Your task to perform on an android device: set default search engine in the chrome app Image 0: 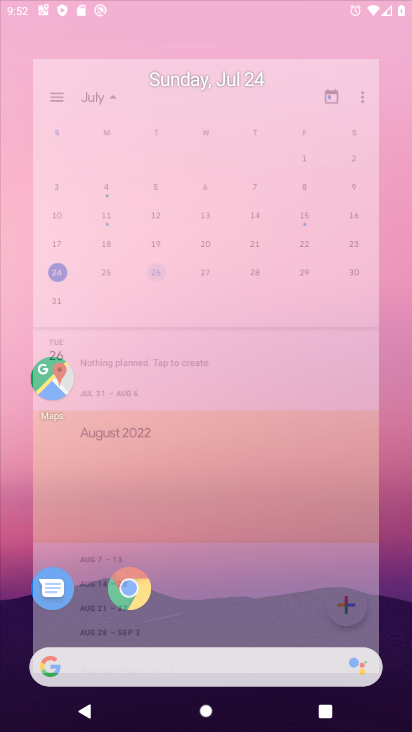
Step 0: drag from (245, 520) to (153, 143)
Your task to perform on an android device: set default search engine in the chrome app Image 1: 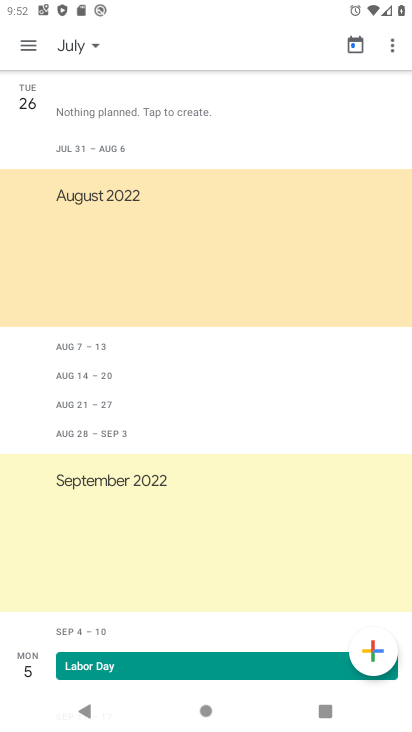
Step 1: press back button
Your task to perform on an android device: set default search engine in the chrome app Image 2: 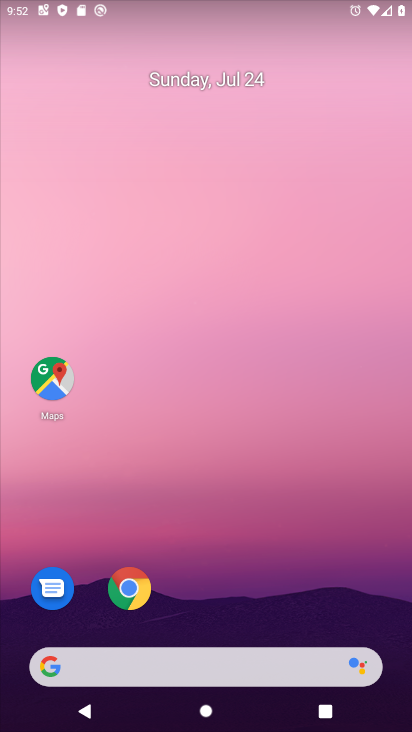
Step 2: drag from (231, 442) to (122, 3)
Your task to perform on an android device: set default search engine in the chrome app Image 3: 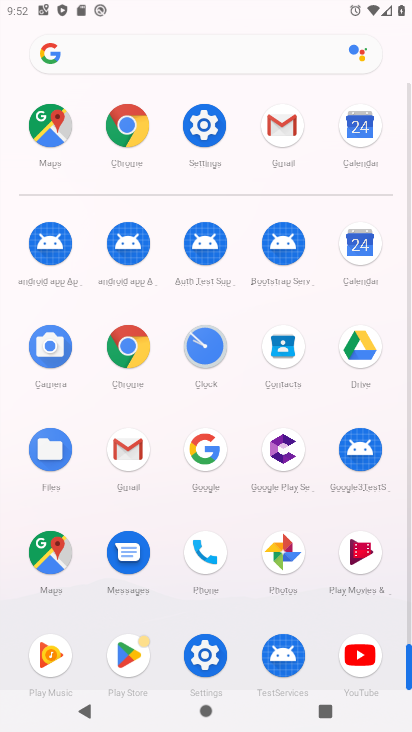
Step 3: click (119, 151)
Your task to perform on an android device: set default search engine in the chrome app Image 4: 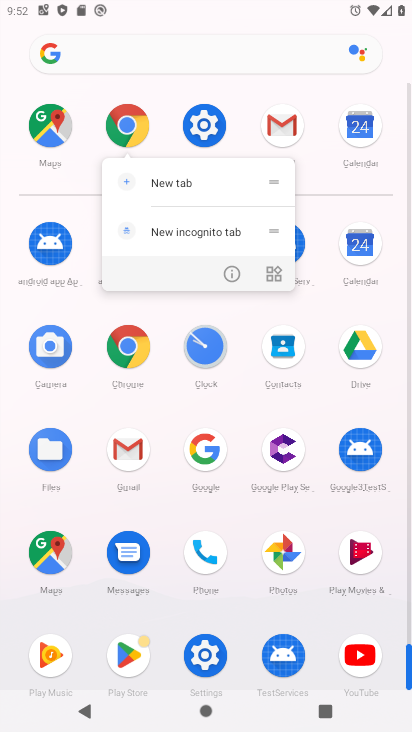
Step 4: click (121, 132)
Your task to perform on an android device: set default search engine in the chrome app Image 5: 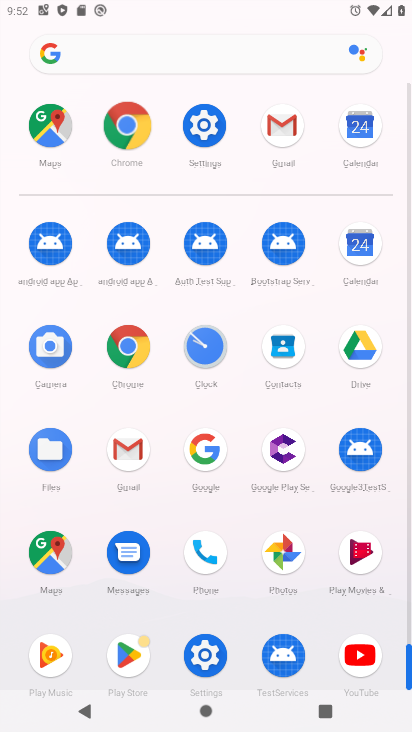
Step 5: click (143, 121)
Your task to perform on an android device: set default search engine in the chrome app Image 6: 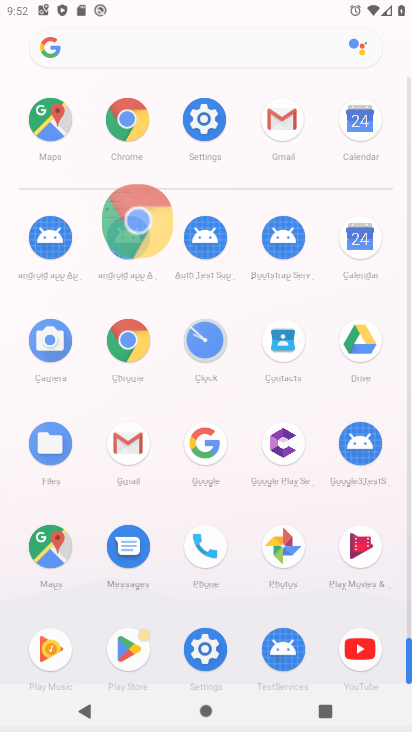
Step 6: click (146, 124)
Your task to perform on an android device: set default search engine in the chrome app Image 7: 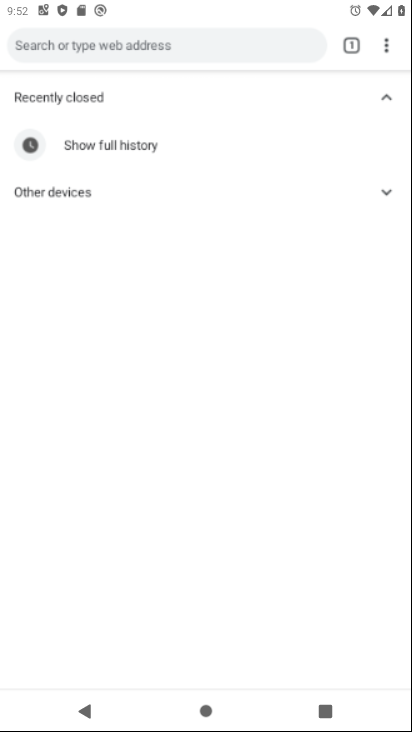
Step 7: click (145, 126)
Your task to perform on an android device: set default search engine in the chrome app Image 8: 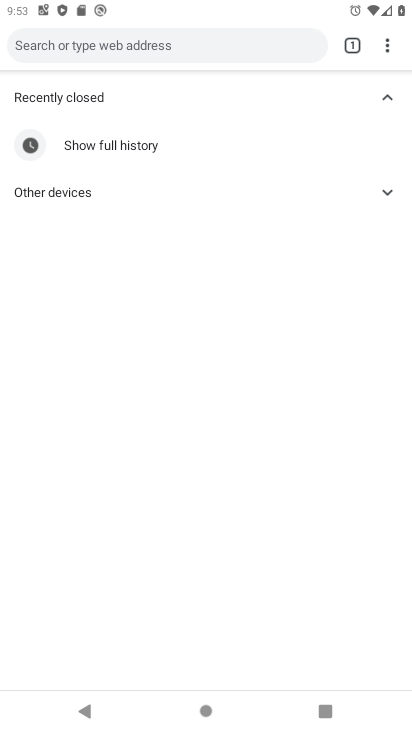
Step 8: drag from (384, 42) to (219, 390)
Your task to perform on an android device: set default search engine in the chrome app Image 9: 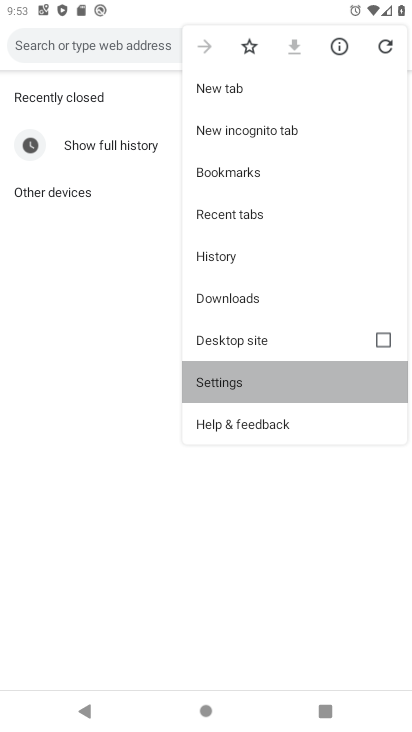
Step 9: click (225, 393)
Your task to perform on an android device: set default search engine in the chrome app Image 10: 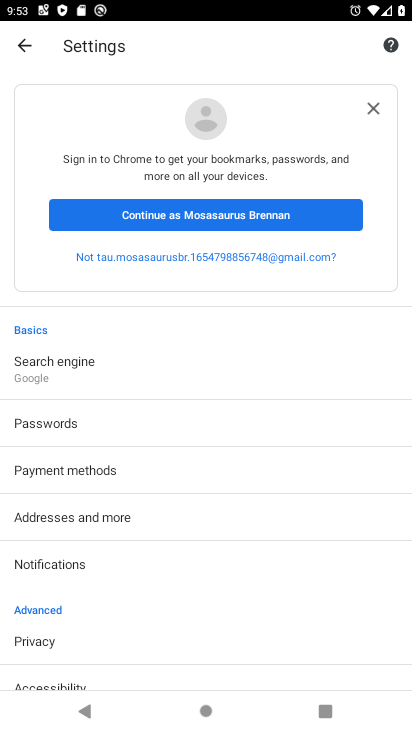
Step 10: click (41, 360)
Your task to perform on an android device: set default search engine in the chrome app Image 11: 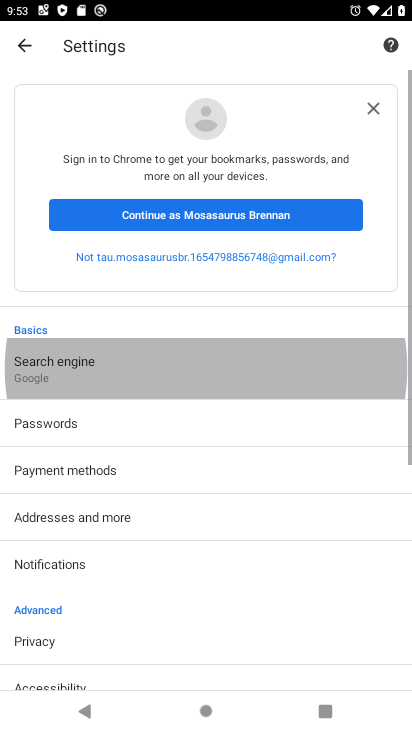
Step 11: click (42, 361)
Your task to perform on an android device: set default search engine in the chrome app Image 12: 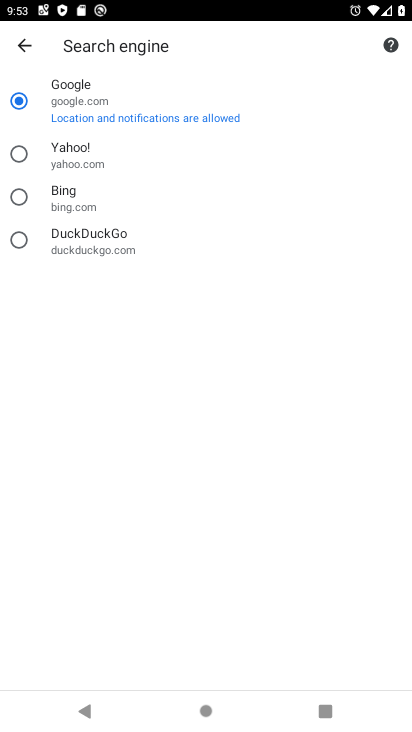
Step 12: click (17, 149)
Your task to perform on an android device: set default search engine in the chrome app Image 13: 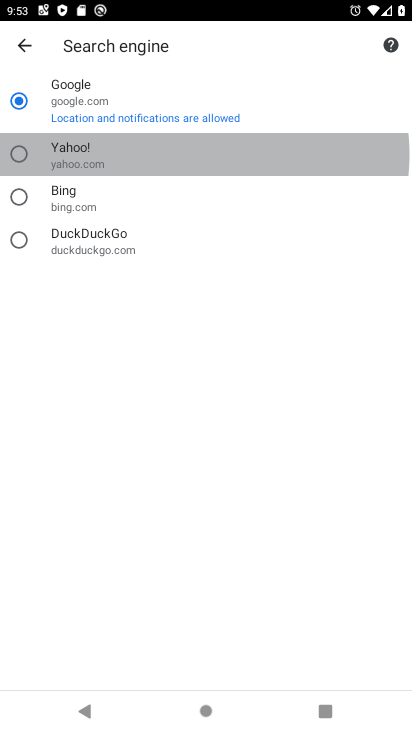
Step 13: click (20, 150)
Your task to perform on an android device: set default search engine in the chrome app Image 14: 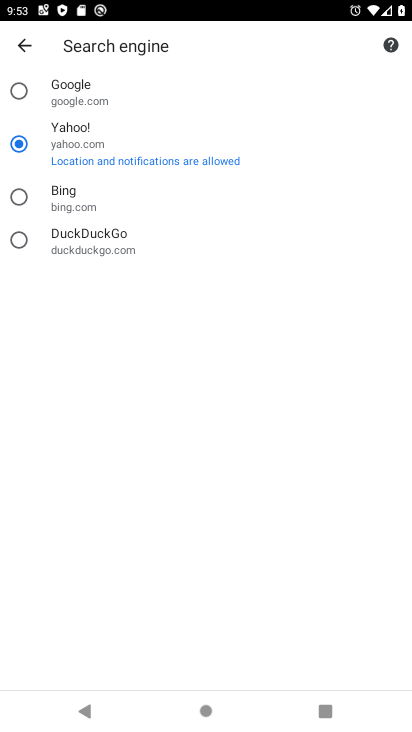
Step 14: task complete